Your task to perform on an android device: change text size in settings app Image 0: 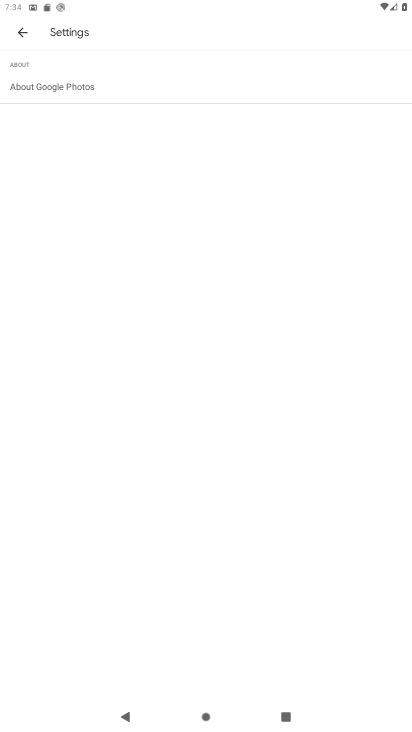
Step 0: press home button
Your task to perform on an android device: change text size in settings app Image 1: 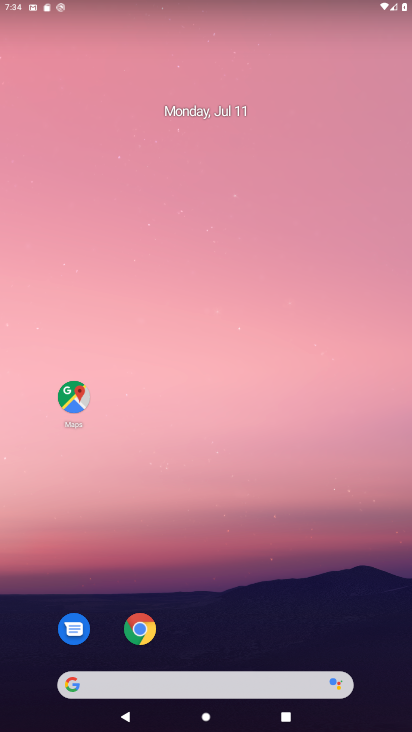
Step 1: drag from (352, 590) to (372, 93)
Your task to perform on an android device: change text size in settings app Image 2: 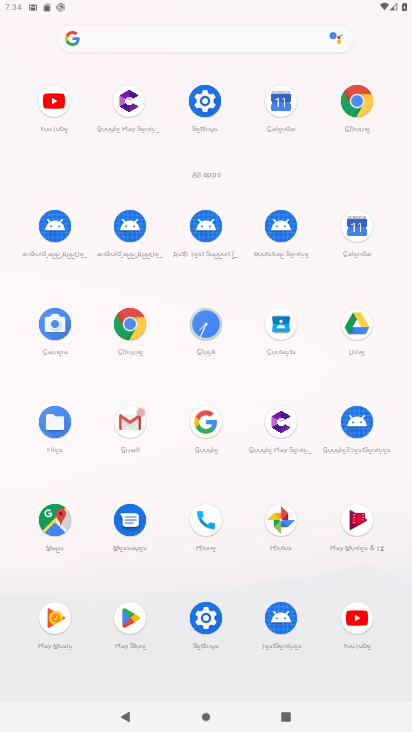
Step 2: click (203, 107)
Your task to perform on an android device: change text size in settings app Image 3: 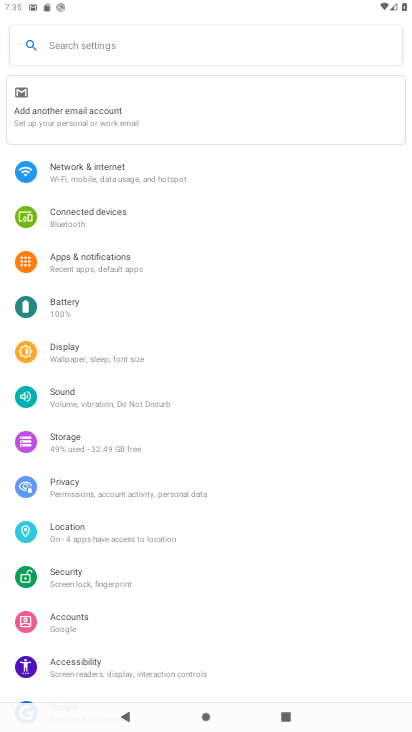
Step 3: drag from (266, 386) to (268, 291)
Your task to perform on an android device: change text size in settings app Image 4: 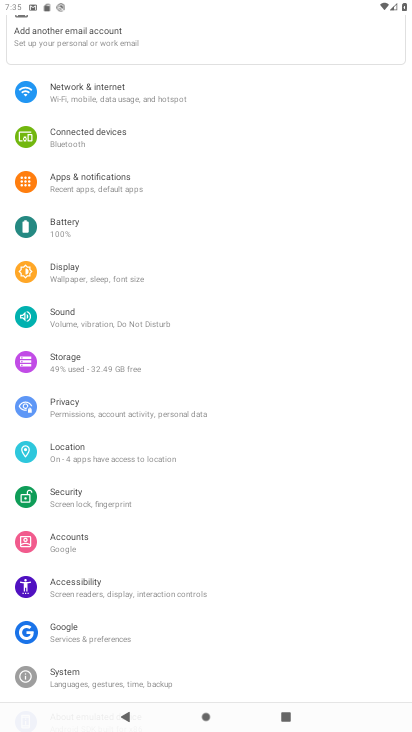
Step 4: drag from (302, 441) to (299, 328)
Your task to perform on an android device: change text size in settings app Image 5: 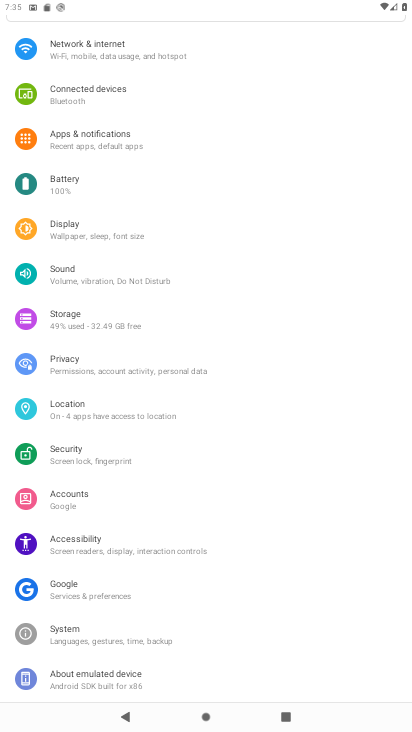
Step 5: drag from (309, 473) to (306, 335)
Your task to perform on an android device: change text size in settings app Image 6: 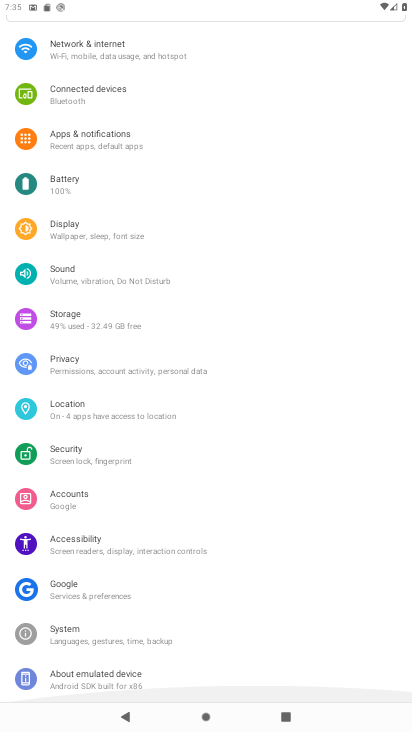
Step 6: drag from (307, 275) to (303, 401)
Your task to perform on an android device: change text size in settings app Image 7: 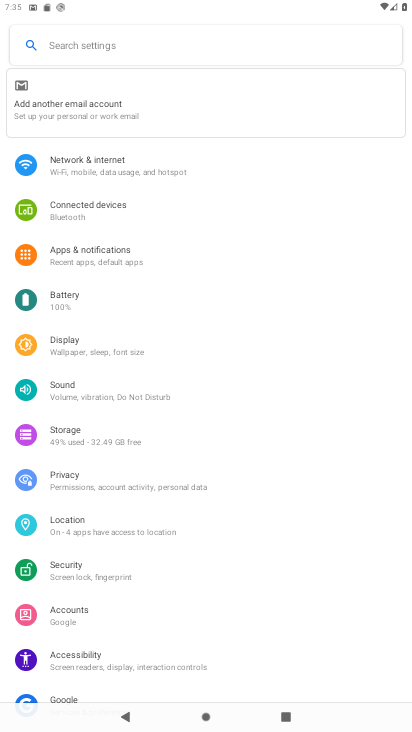
Step 7: click (146, 342)
Your task to perform on an android device: change text size in settings app Image 8: 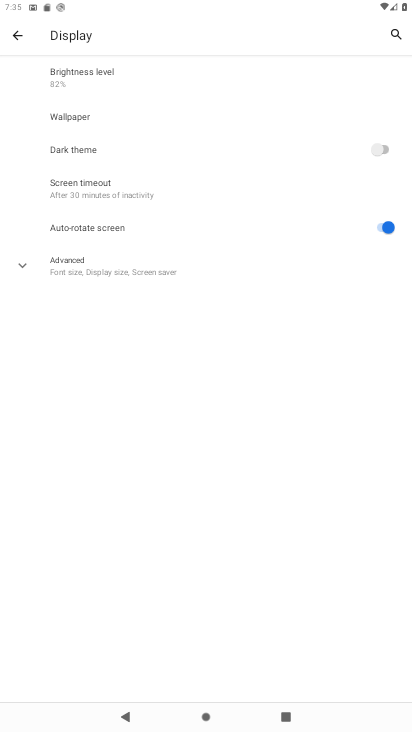
Step 8: click (149, 273)
Your task to perform on an android device: change text size in settings app Image 9: 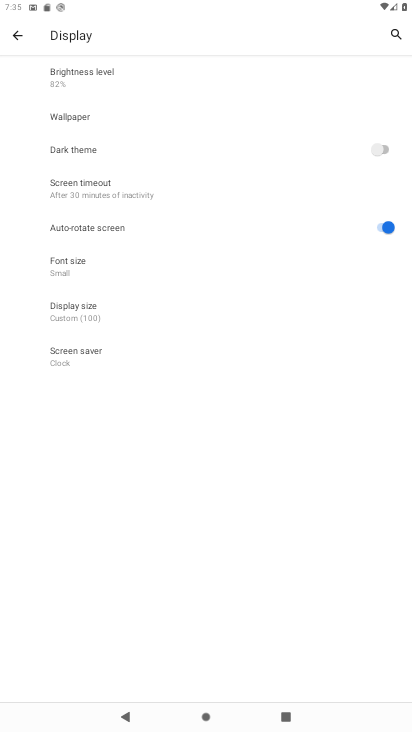
Step 9: click (106, 271)
Your task to perform on an android device: change text size in settings app Image 10: 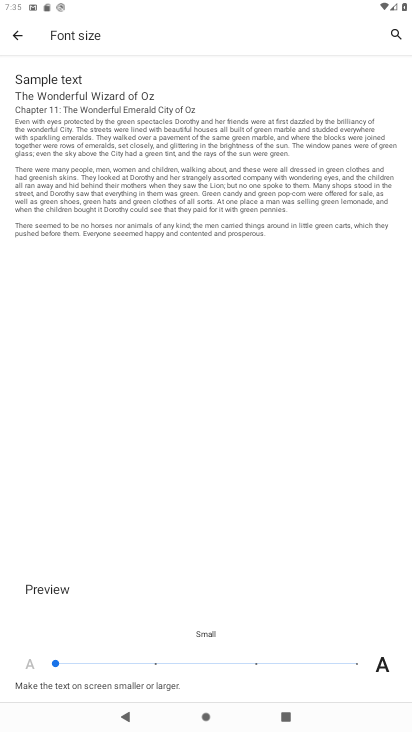
Step 10: click (157, 664)
Your task to perform on an android device: change text size in settings app Image 11: 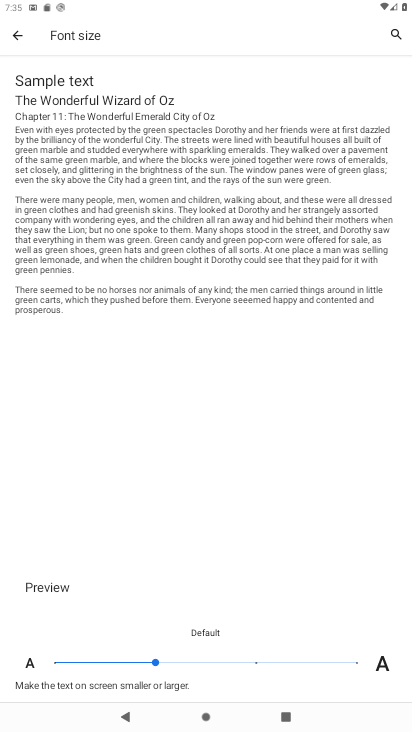
Step 11: click (255, 661)
Your task to perform on an android device: change text size in settings app Image 12: 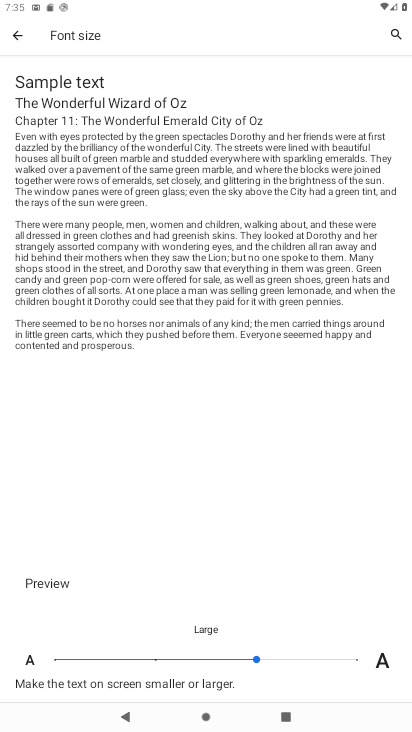
Step 12: click (354, 660)
Your task to perform on an android device: change text size in settings app Image 13: 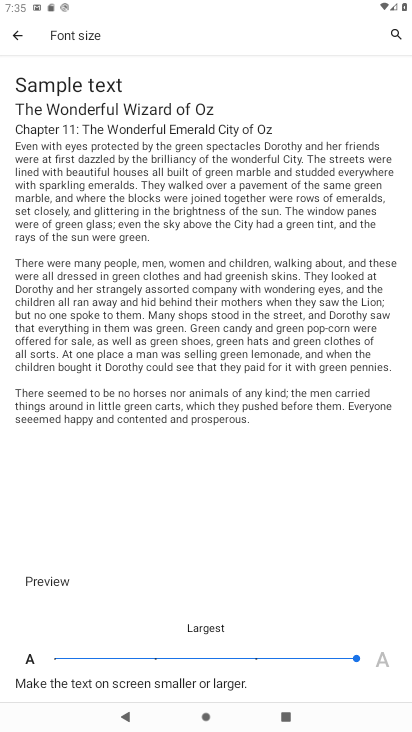
Step 13: task complete